Your task to perform on an android device: choose inbox layout in the gmail app Image 0: 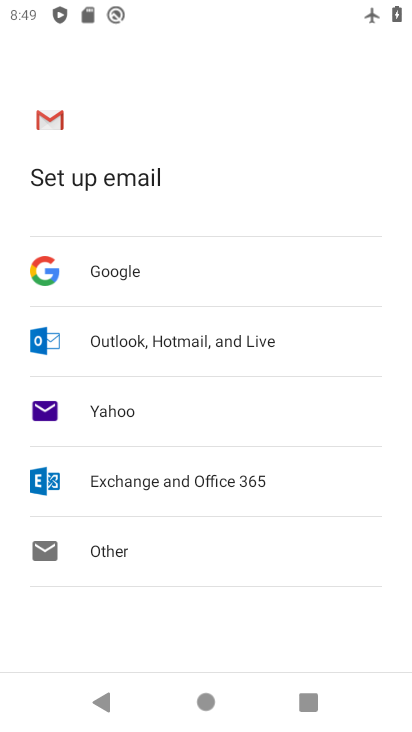
Step 0: press home button
Your task to perform on an android device: choose inbox layout in the gmail app Image 1: 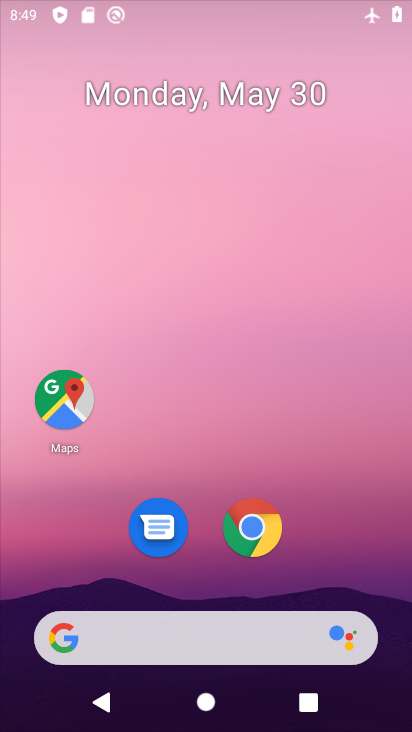
Step 1: drag from (256, 584) to (349, 12)
Your task to perform on an android device: choose inbox layout in the gmail app Image 2: 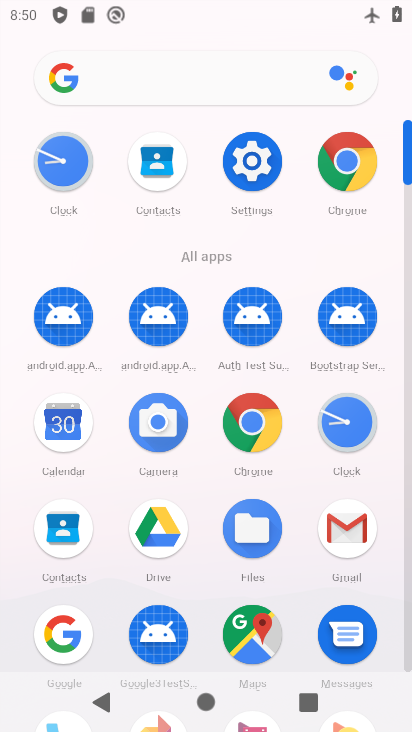
Step 2: click (338, 529)
Your task to perform on an android device: choose inbox layout in the gmail app Image 3: 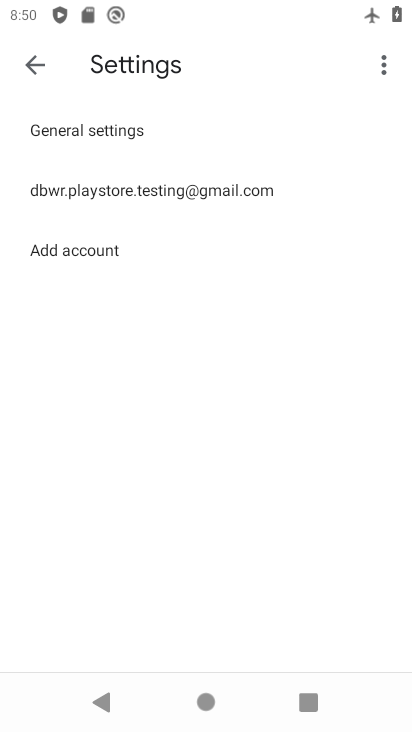
Step 3: click (177, 189)
Your task to perform on an android device: choose inbox layout in the gmail app Image 4: 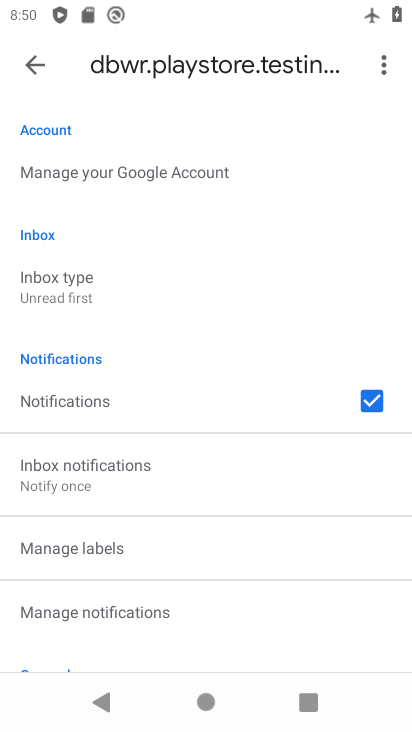
Step 4: click (140, 288)
Your task to perform on an android device: choose inbox layout in the gmail app Image 5: 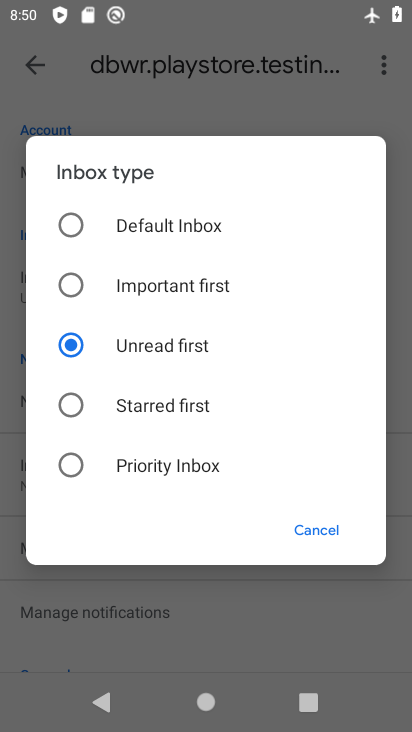
Step 5: click (63, 391)
Your task to perform on an android device: choose inbox layout in the gmail app Image 6: 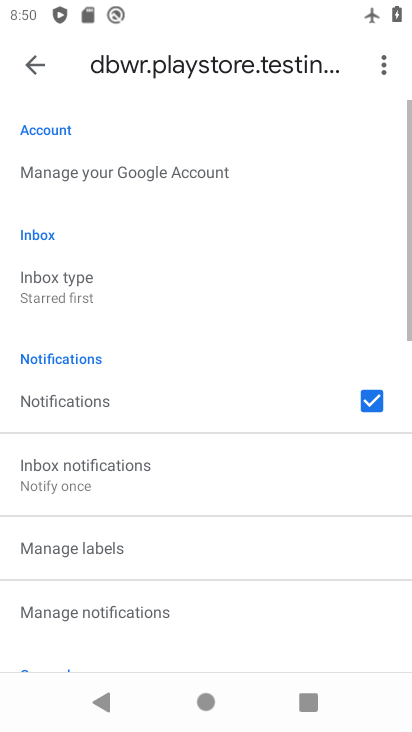
Step 6: task complete